Your task to perform on an android device: Look up the best rated wireless earbuds on Ali Express Image 0: 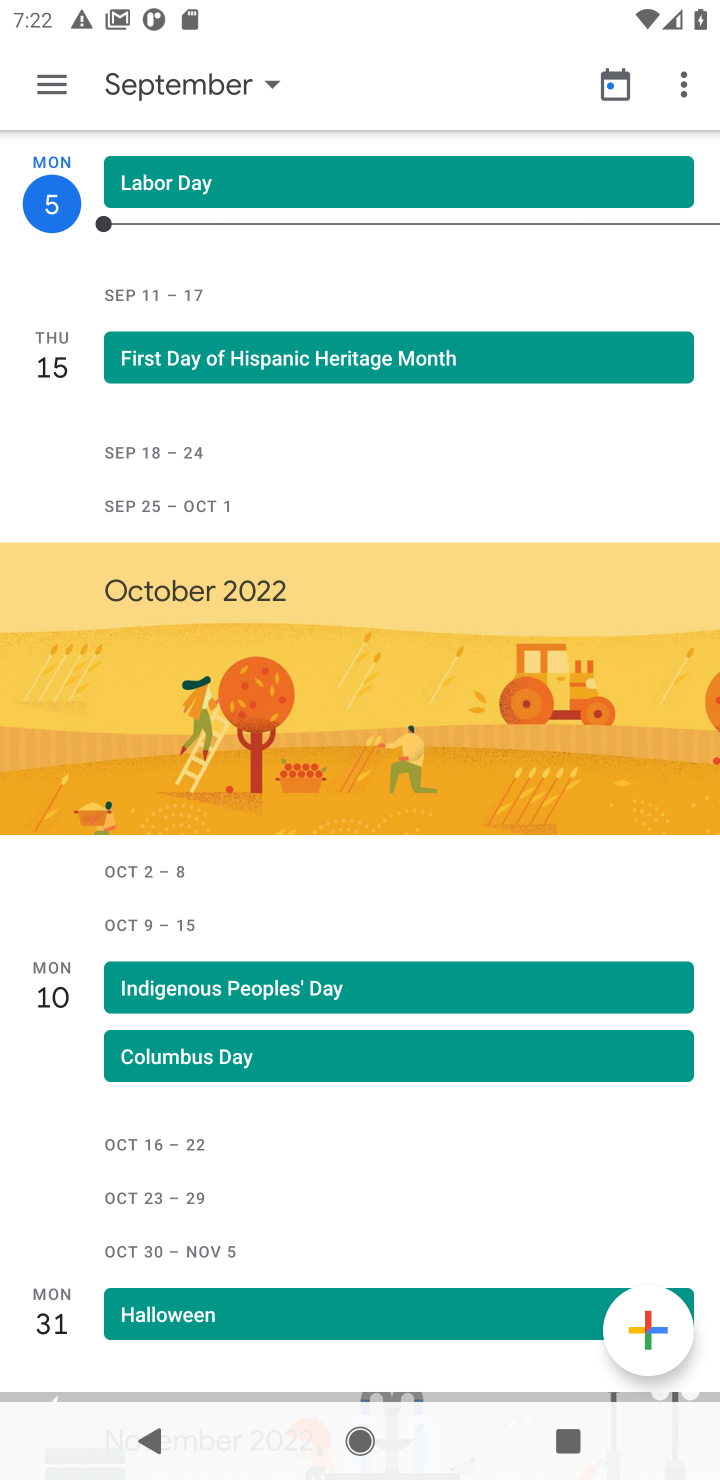
Step 0: press home button
Your task to perform on an android device: Look up the best rated wireless earbuds on Ali Express Image 1: 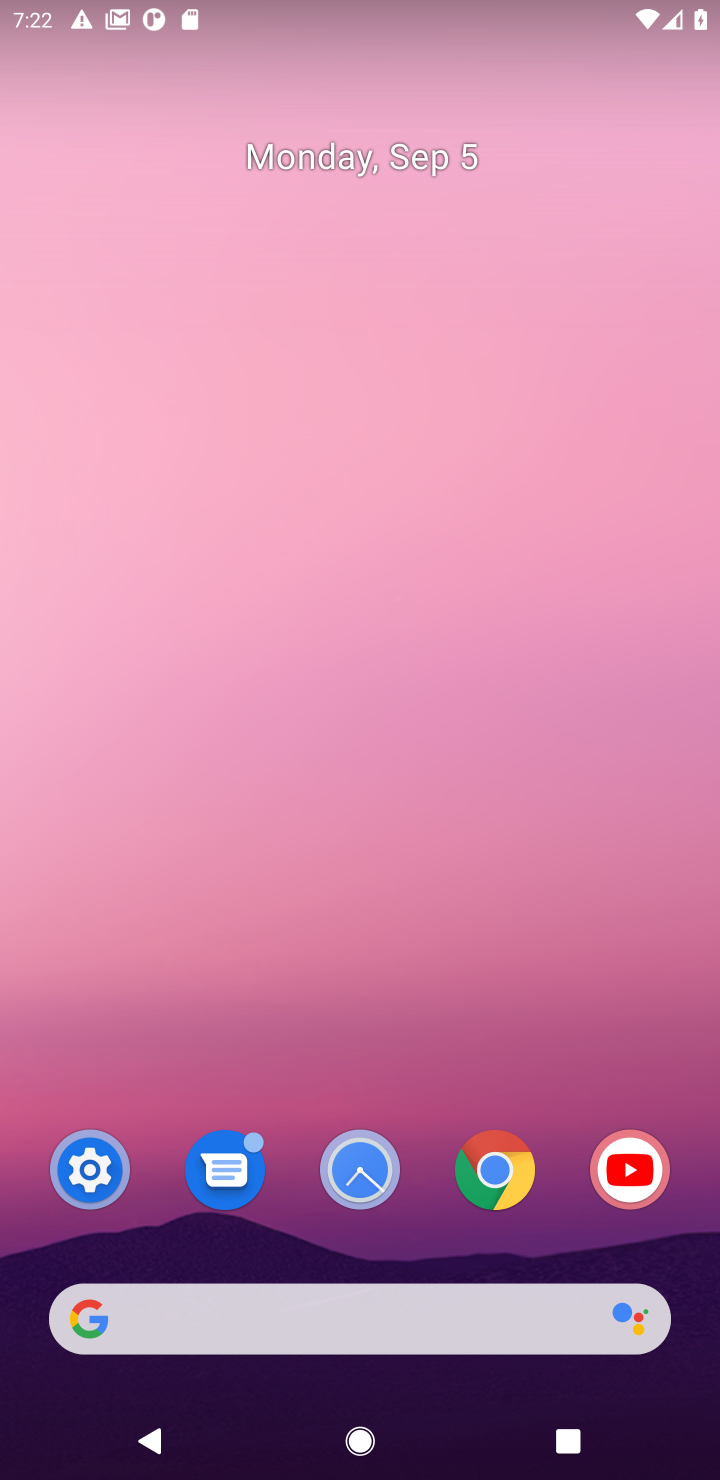
Step 1: click (495, 1148)
Your task to perform on an android device: Look up the best rated wireless earbuds on Ali Express Image 2: 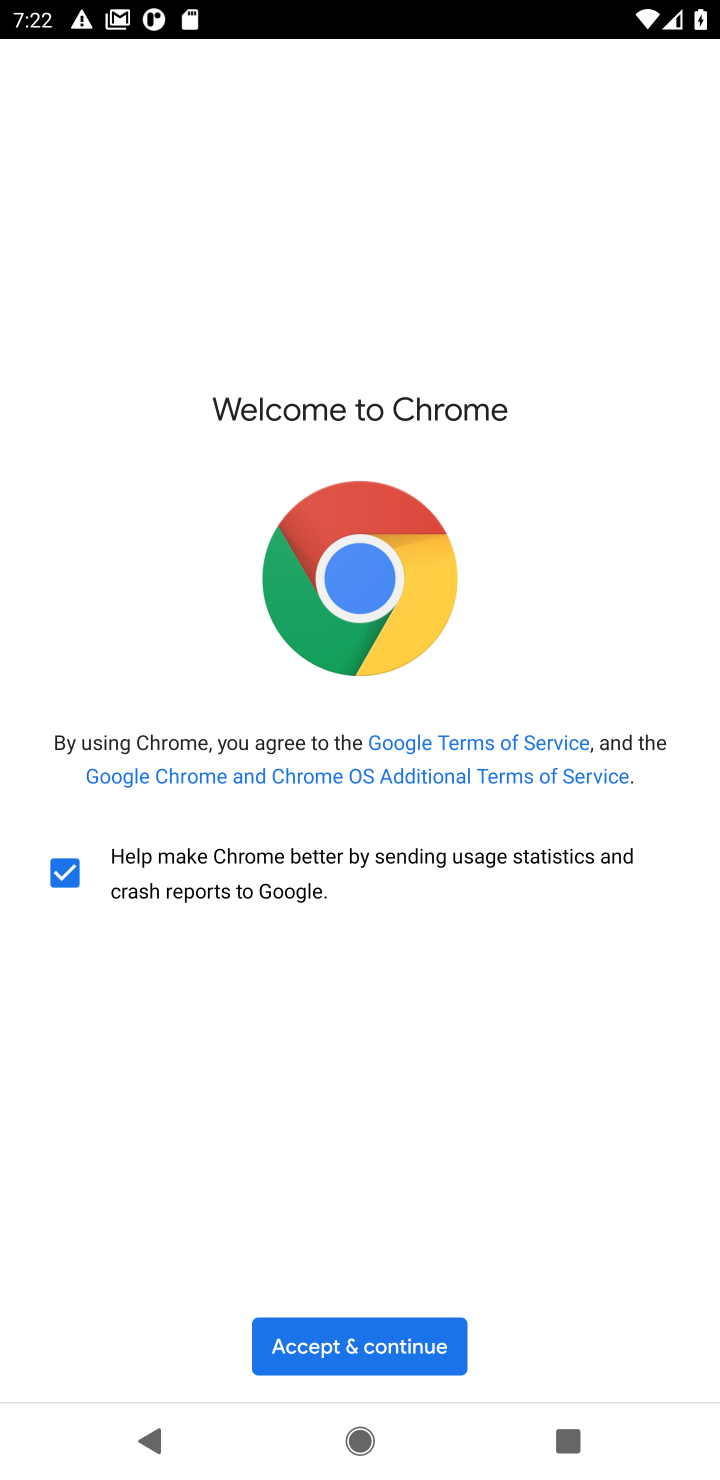
Step 2: click (349, 1333)
Your task to perform on an android device: Look up the best rated wireless earbuds on Ali Express Image 3: 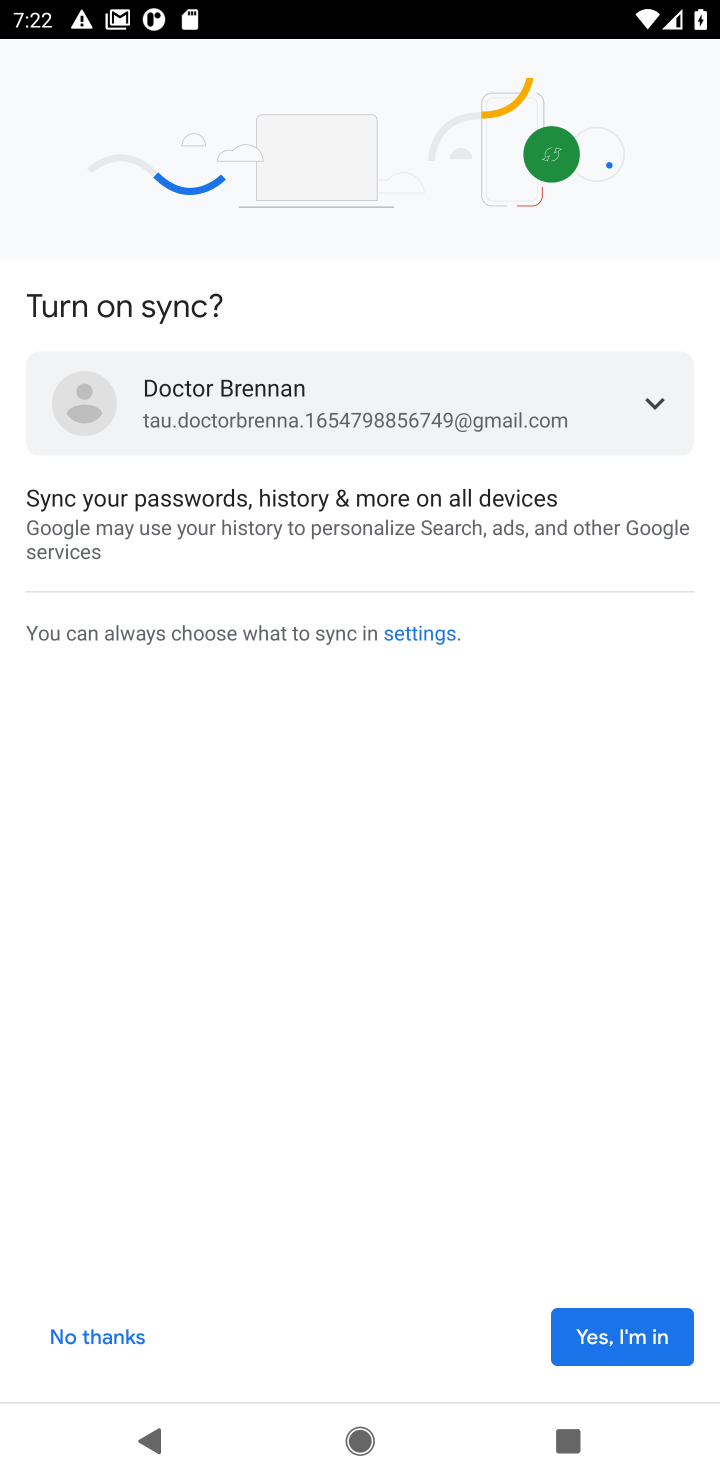
Step 3: click (624, 1316)
Your task to perform on an android device: Look up the best rated wireless earbuds on Ali Express Image 4: 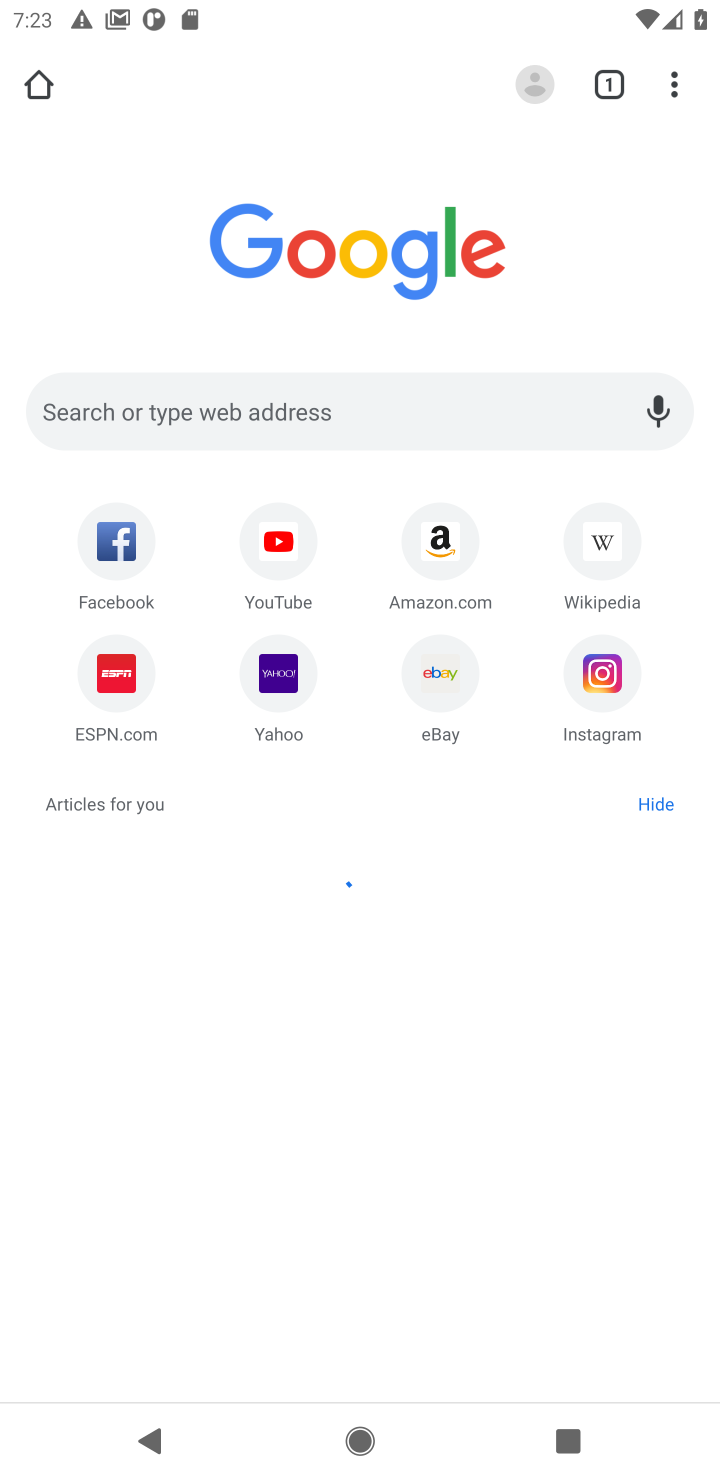
Step 4: click (384, 395)
Your task to perform on an android device: Look up the best rated wireless earbuds on Ali Express Image 5: 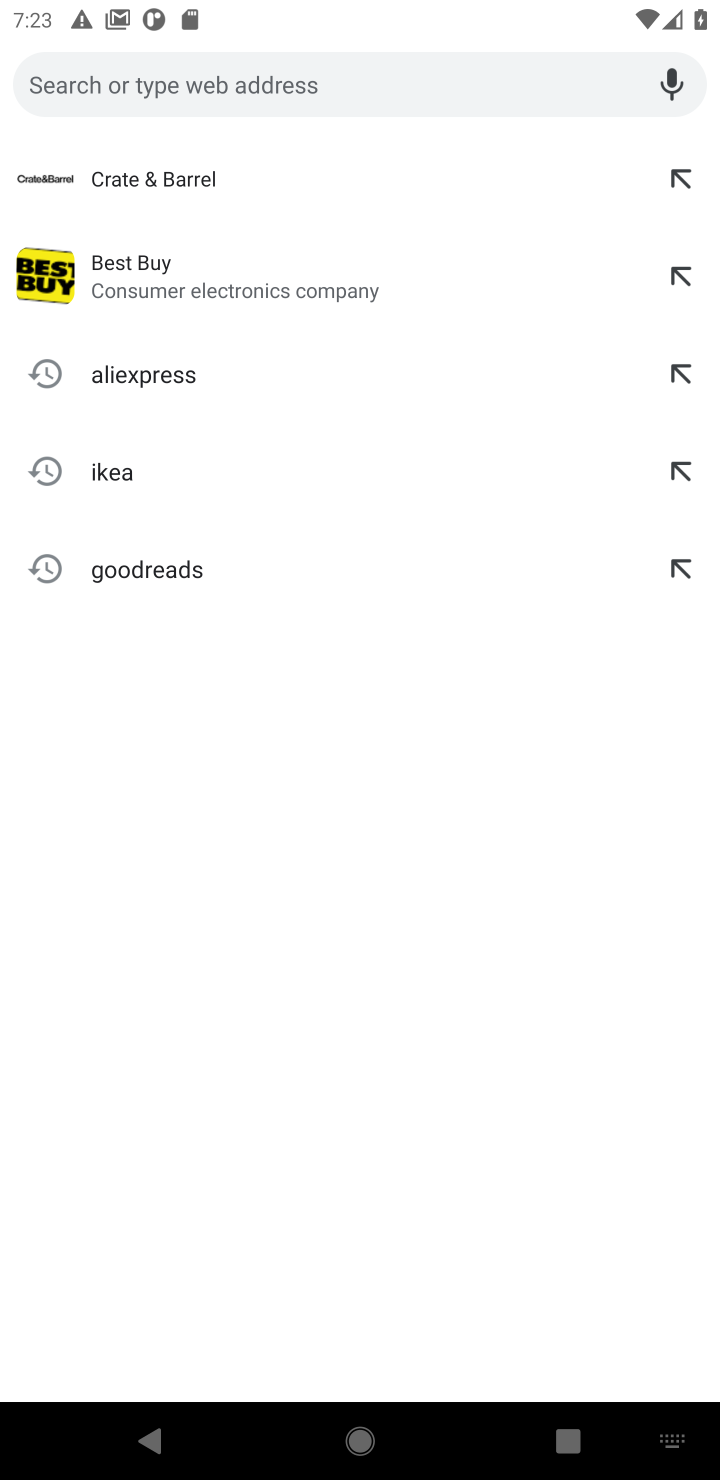
Step 5: type "AliExpress"
Your task to perform on an android device: Look up the best rated wireless earbuds on Ali Express Image 6: 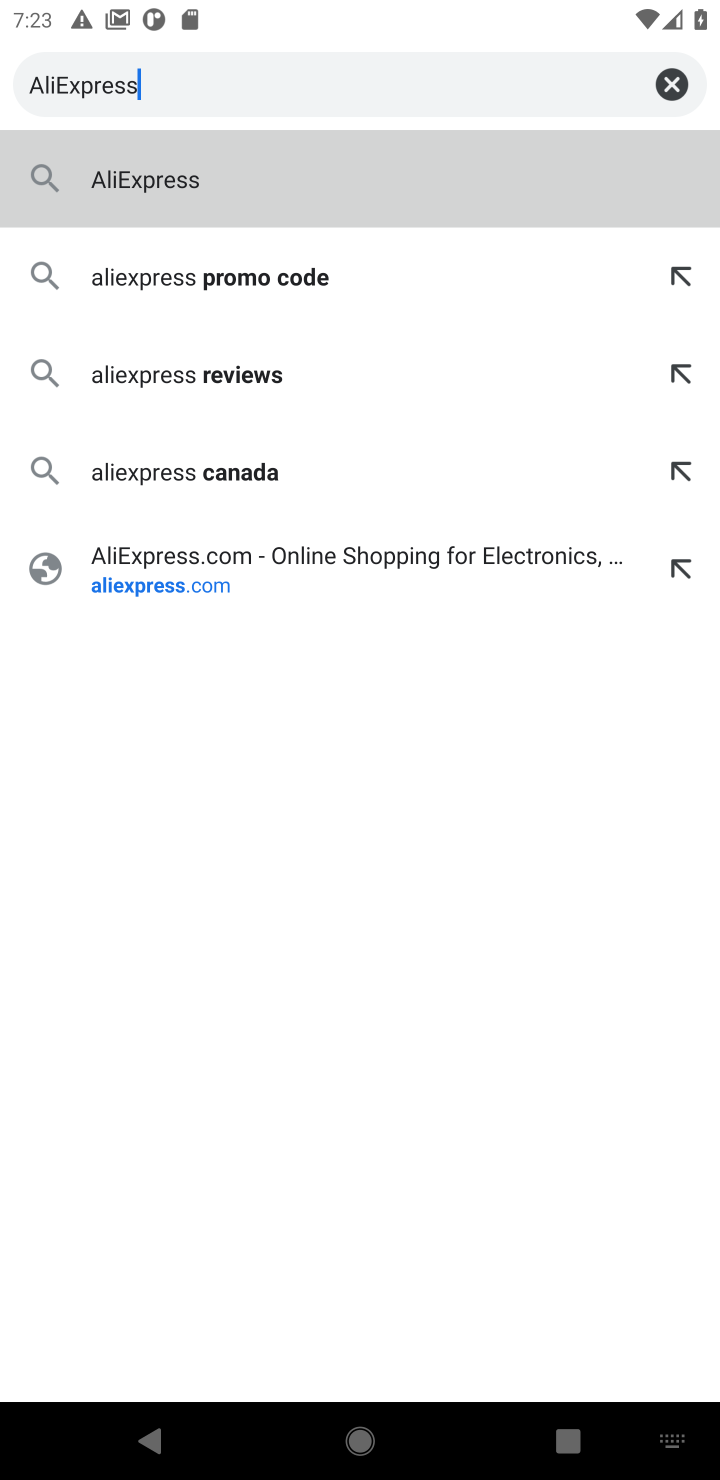
Step 6: click (234, 214)
Your task to perform on an android device: Look up the best rated wireless earbuds on Ali Express Image 7: 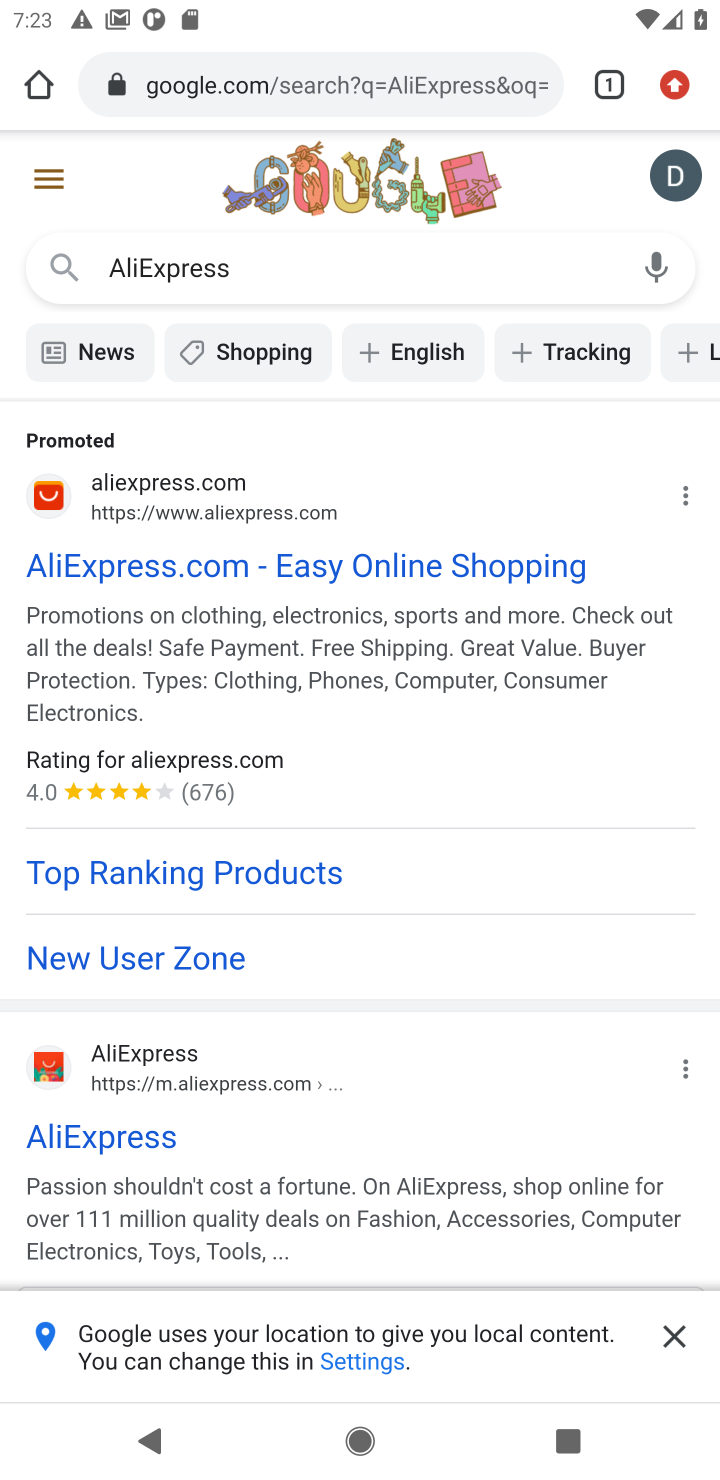
Step 7: click (205, 537)
Your task to perform on an android device: Look up the best rated wireless earbuds on Ali Express Image 8: 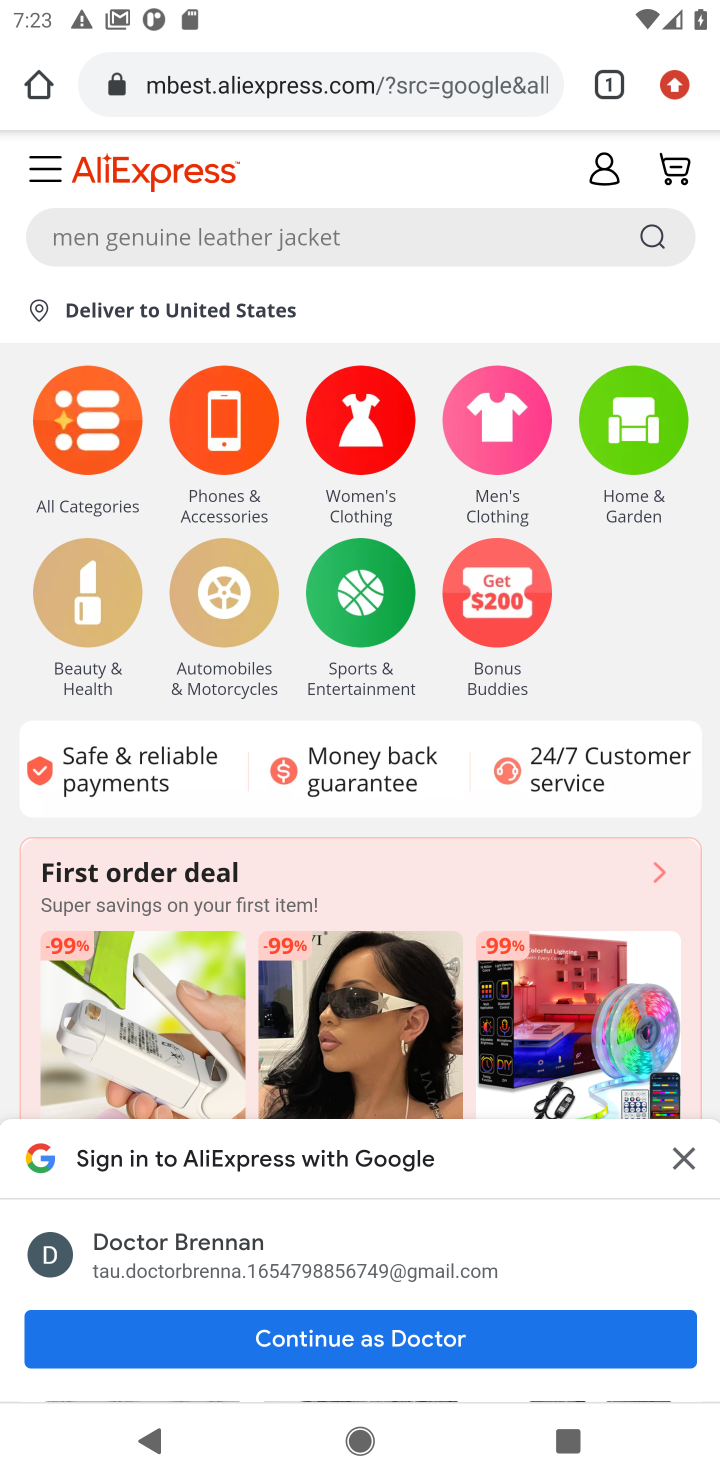
Step 8: click (378, 1320)
Your task to perform on an android device: Look up the best rated wireless earbuds on Ali Express Image 9: 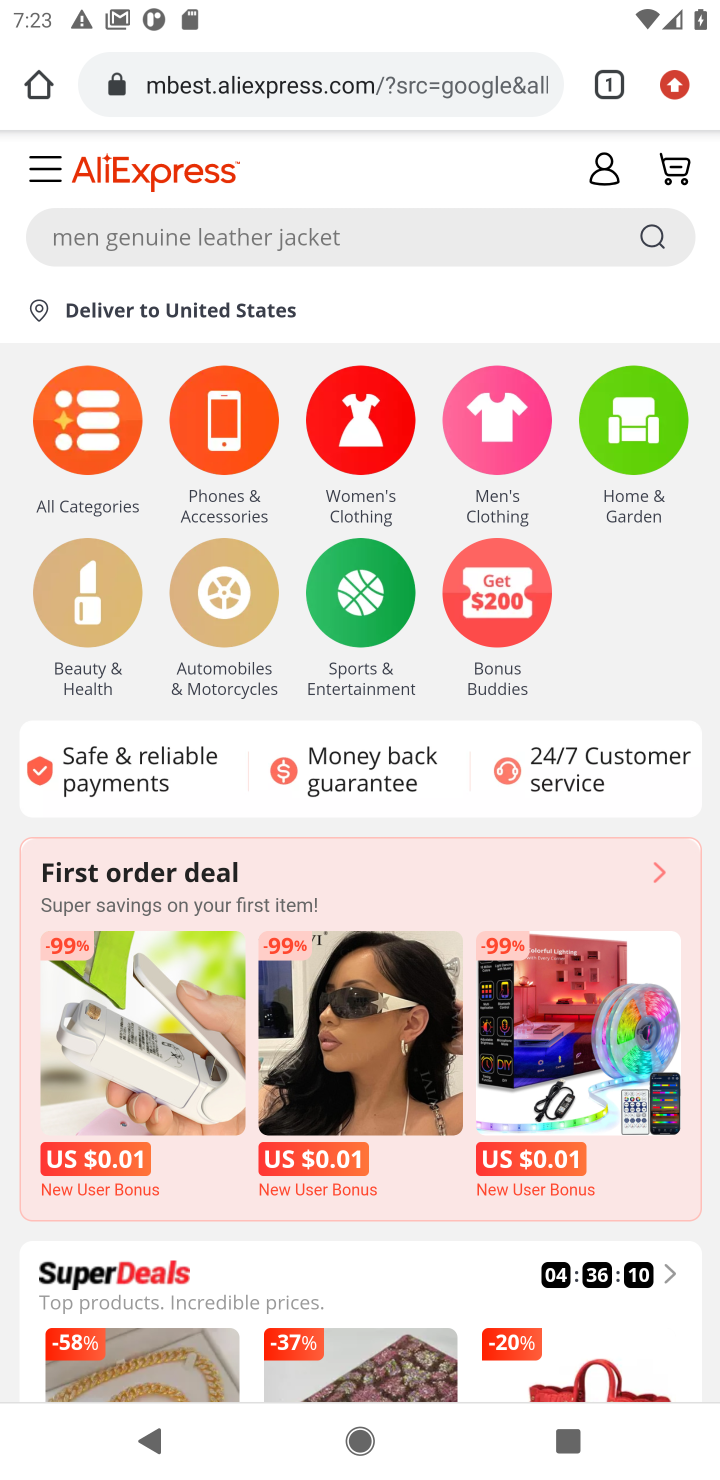
Step 9: click (536, 212)
Your task to perform on an android device: Look up the best rated wireless earbuds on Ali Express Image 10: 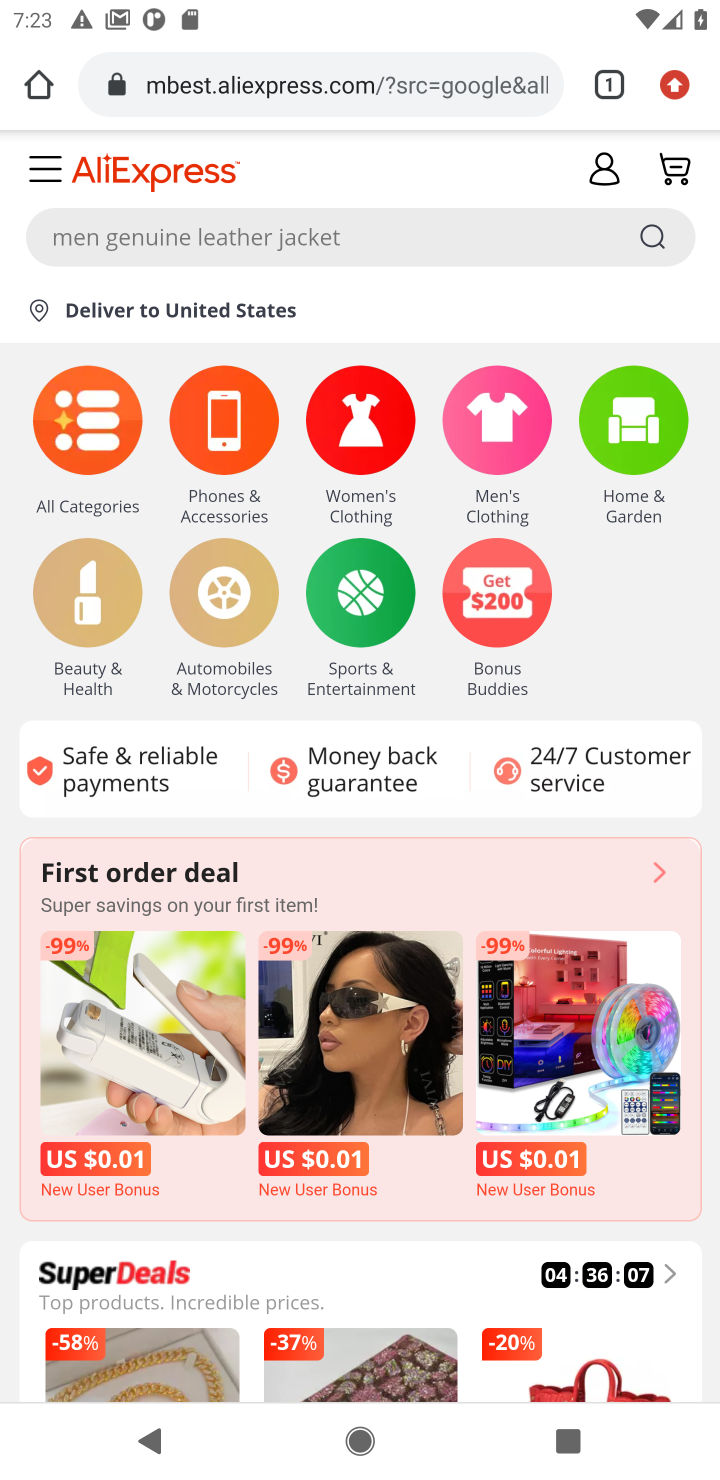
Step 10: click (494, 208)
Your task to perform on an android device: Look up the best rated wireless earbuds on Ali Express Image 11: 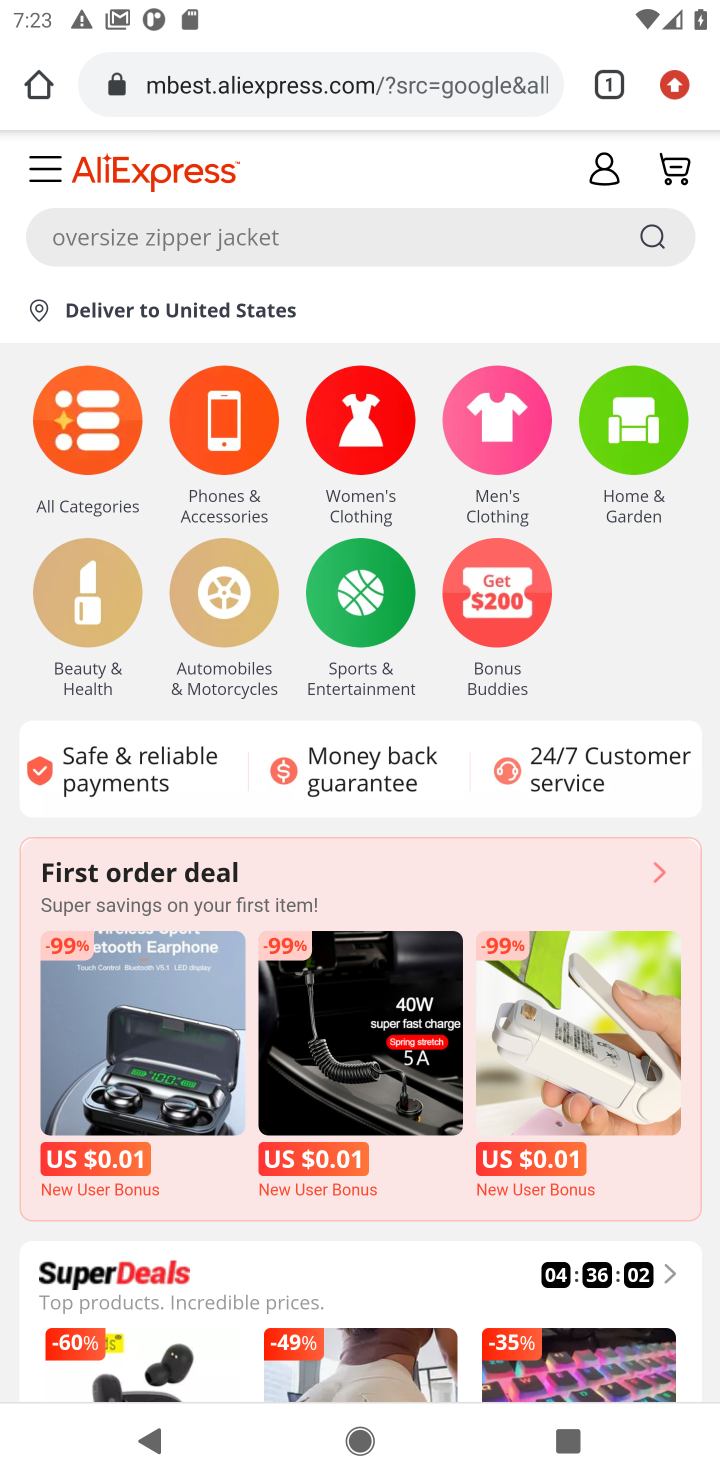
Step 11: click (474, 245)
Your task to perform on an android device: Look up the best rated wireless earbuds on Ali Express Image 12: 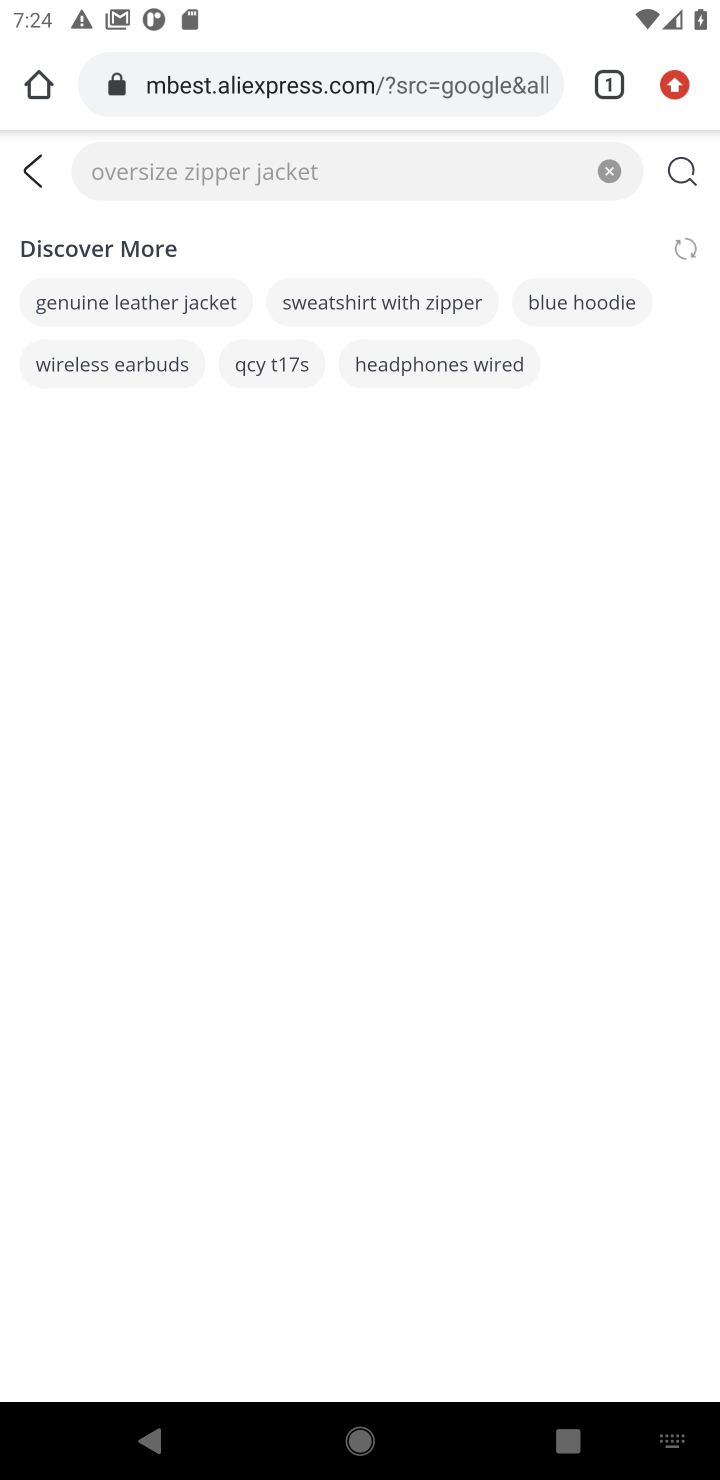
Step 12: type "the best rated wireless earbuds"
Your task to perform on an android device: Look up the best rated wireless earbuds on Ali Express Image 13: 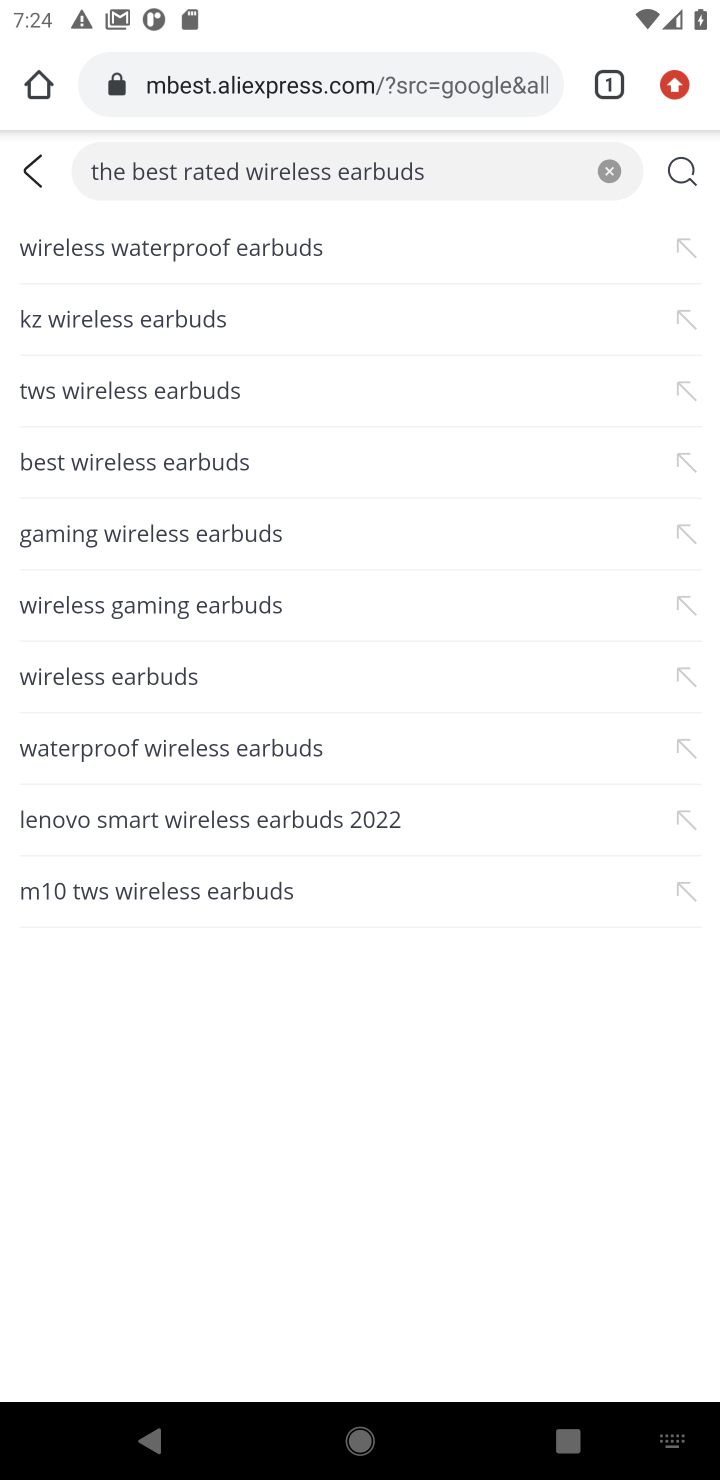
Step 13: click (683, 180)
Your task to perform on an android device: Look up the best rated wireless earbuds on Ali Express Image 14: 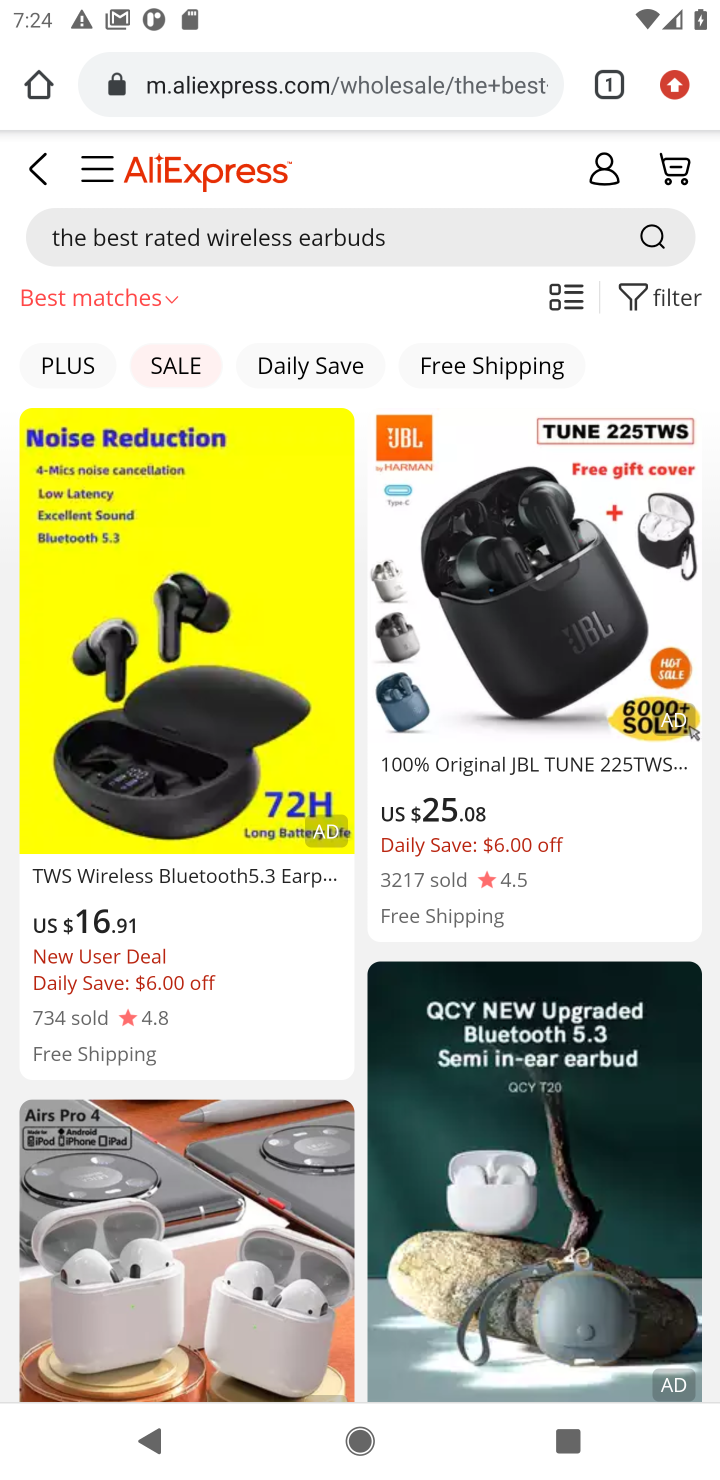
Step 14: task complete